Your task to perform on an android device: turn on showing notifications on the lock screen Image 0: 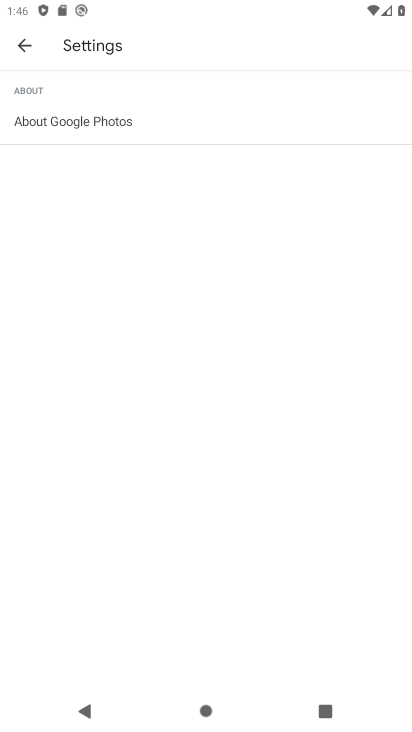
Step 0: press home button
Your task to perform on an android device: turn on showing notifications on the lock screen Image 1: 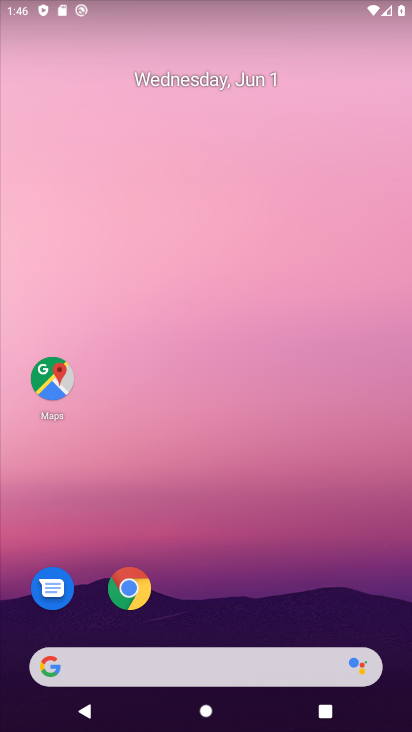
Step 1: drag from (228, 526) to (256, 132)
Your task to perform on an android device: turn on showing notifications on the lock screen Image 2: 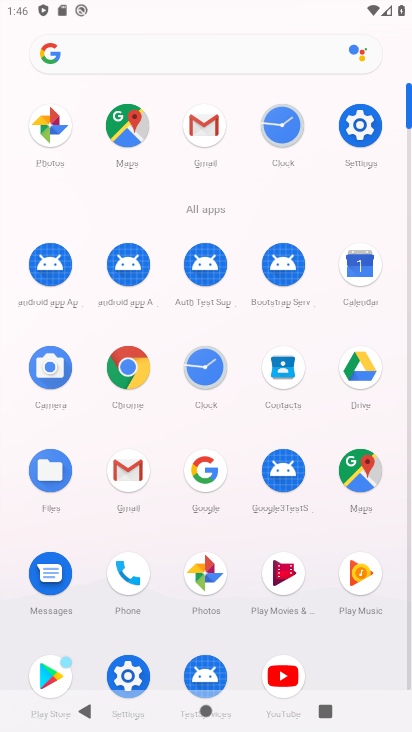
Step 2: click (367, 118)
Your task to perform on an android device: turn on showing notifications on the lock screen Image 3: 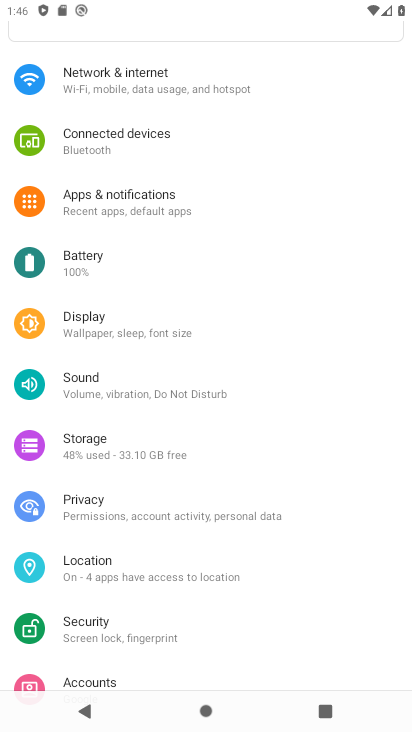
Step 3: click (90, 178)
Your task to perform on an android device: turn on showing notifications on the lock screen Image 4: 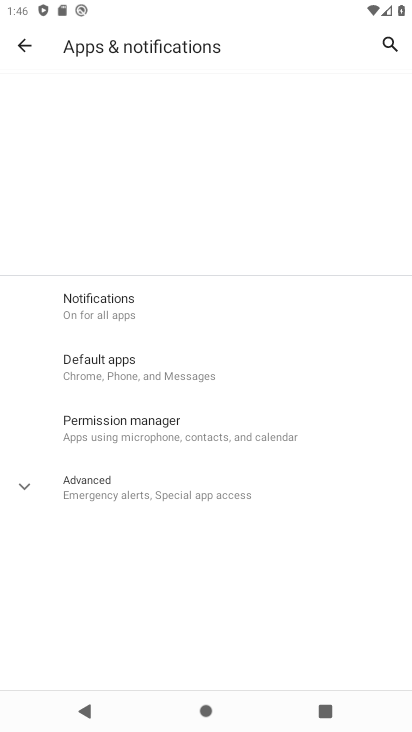
Step 4: click (133, 309)
Your task to perform on an android device: turn on showing notifications on the lock screen Image 5: 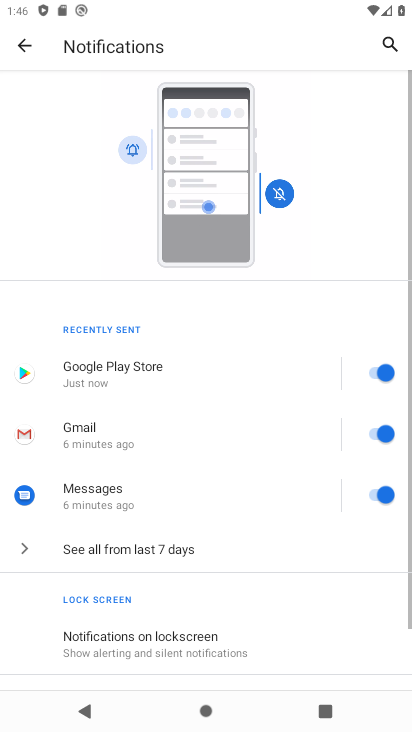
Step 5: click (159, 655)
Your task to perform on an android device: turn on showing notifications on the lock screen Image 6: 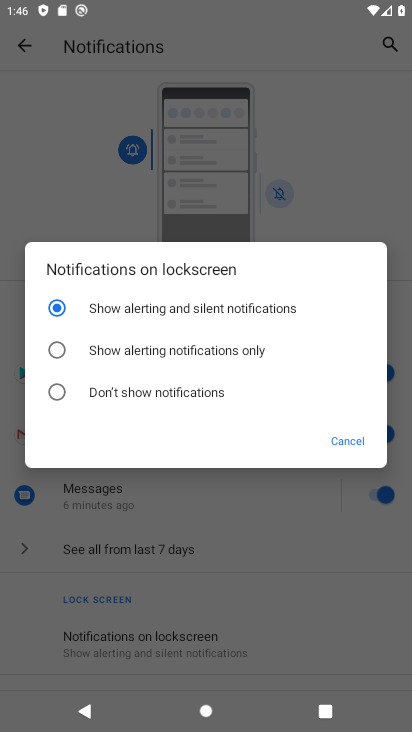
Step 6: task complete